Your task to perform on an android device: Go to privacy settings Image 0: 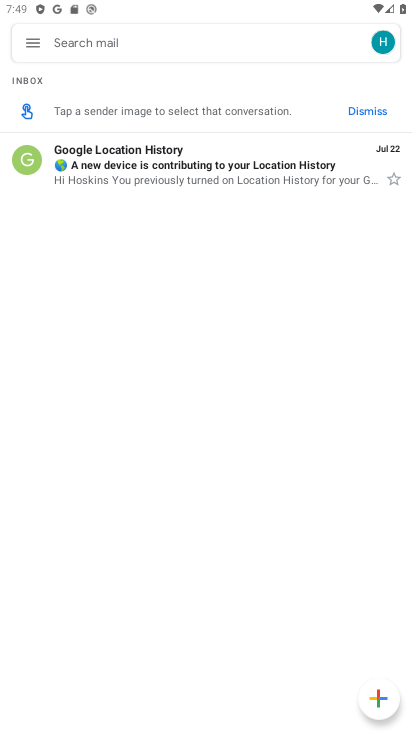
Step 0: press home button
Your task to perform on an android device: Go to privacy settings Image 1: 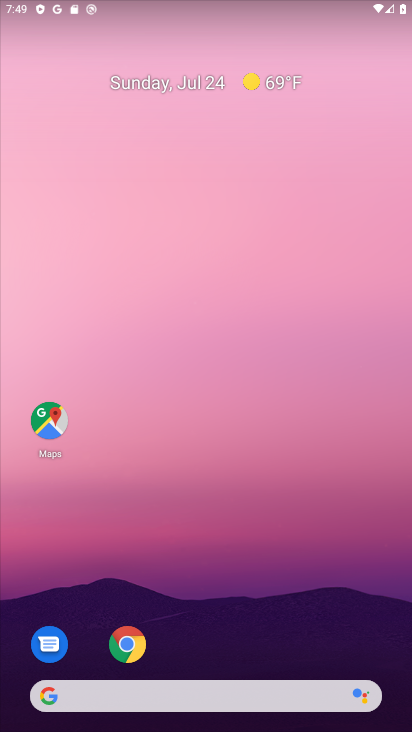
Step 1: drag from (172, 674) to (216, 187)
Your task to perform on an android device: Go to privacy settings Image 2: 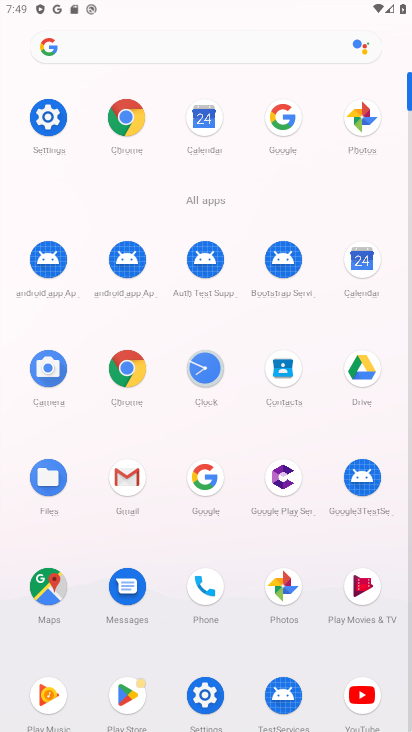
Step 2: click (198, 699)
Your task to perform on an android device: Go to privacy settings Image 3: 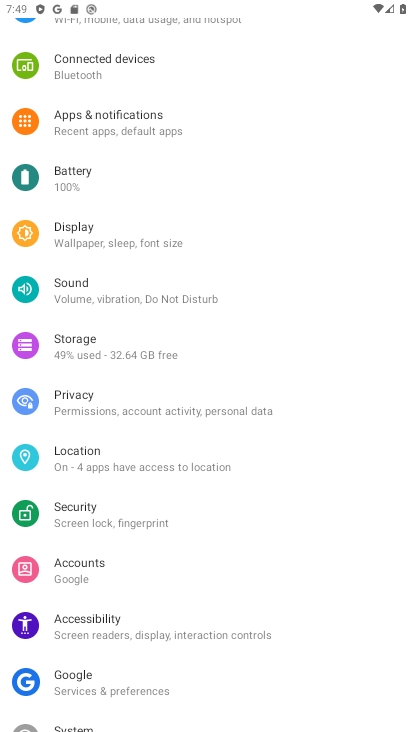
Step 3: click (79, 407)
Your task to perform on an android device: Go to privacy settings Image 4: 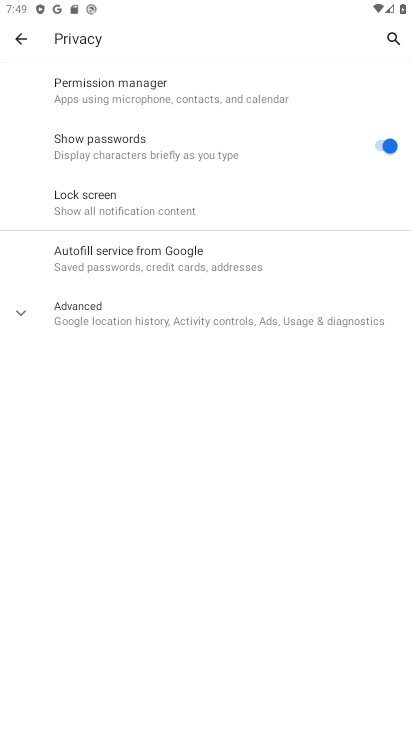
Step 4: click (90, 315)
Your task to perform on an android device: Go to privacy settings Image 5: 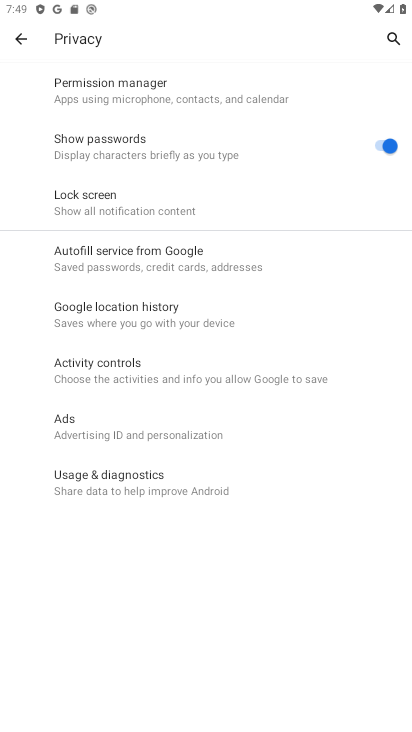
Step 5: task complete